Your task to perform on an android device: allow cookies in the chrome app Image 0: 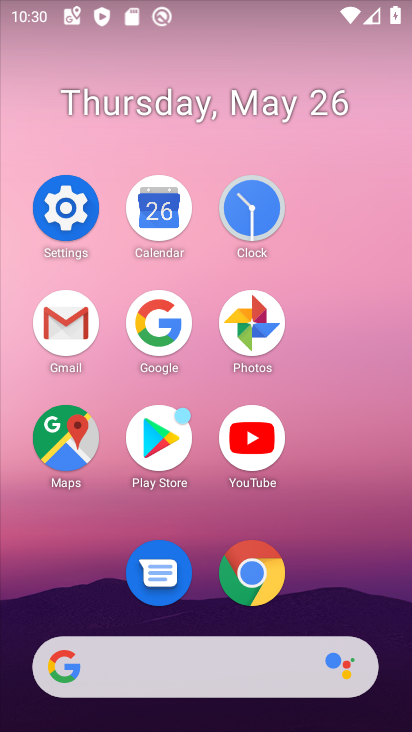
Step 0: click (256, 573)
Your task to perform on an android device: allow cookies in the chrome app Image 1: 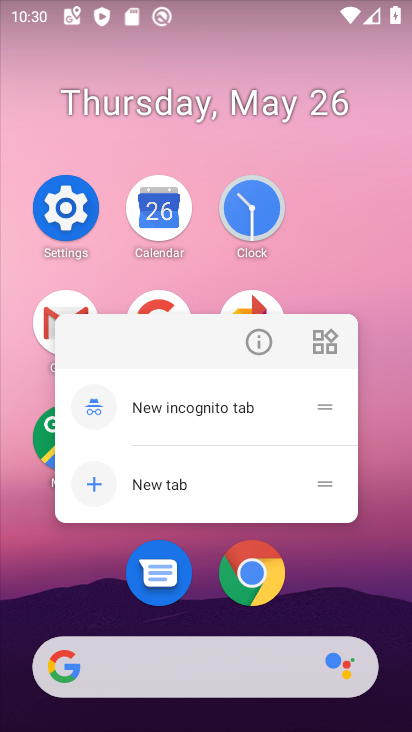
Step 1: click (240, 530)
Your task to perform on an android device: allow cookies in the chrome app Image 2: 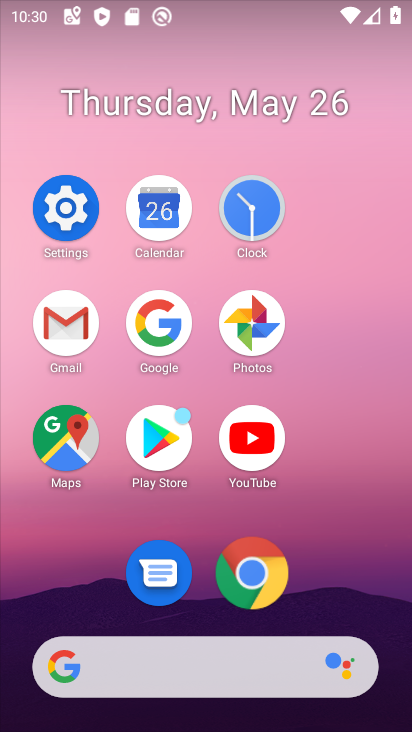
Step 2: click (251, 584)
Your task to perform on an android device: allow cookies in the chrome app Image 3: 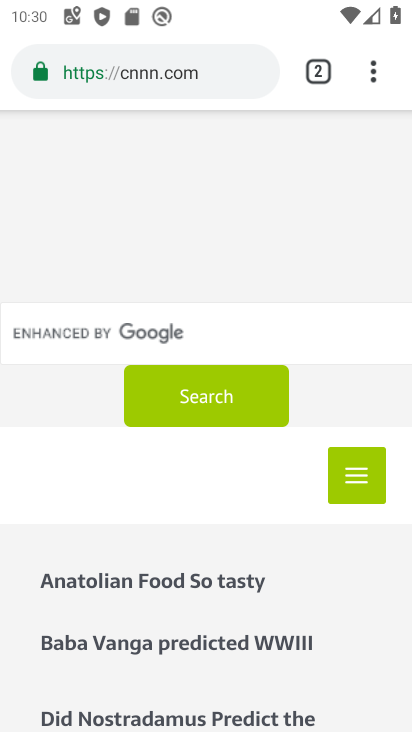
Step 3: click (385, 73)
Your task to perform on an android device: allow cookies in the chrome app Image 4: 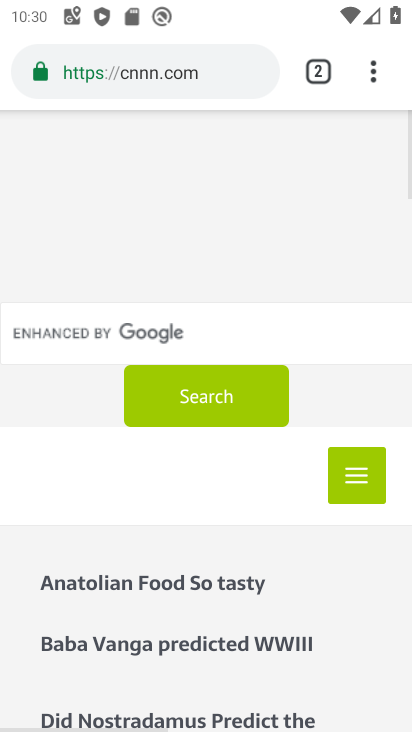
Step 4: click (372, 69)
Your task to perform on an android device: allow cookies in the chrome app Image 5: 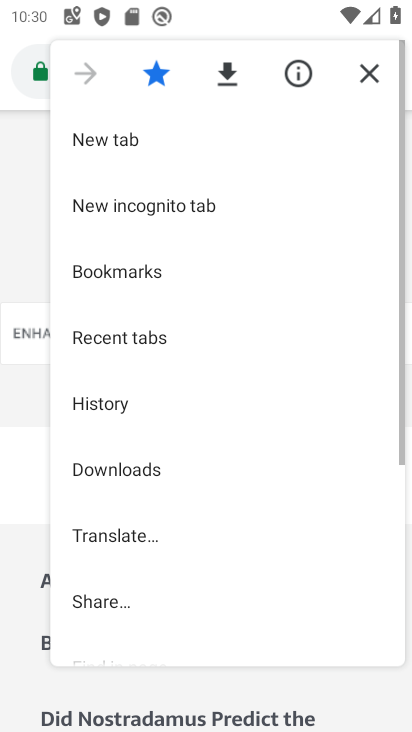
Step 5: drag from (239, 478) to (203, 91)
Your task to perform on an android device: allow cookies in the chrome app Image 6: 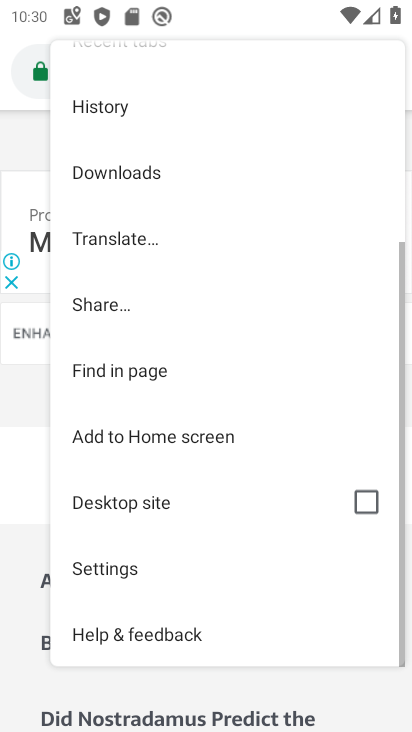
Step 6: click (169, 579)
Your task to perform on an android device: allow cookies in the chrome app Image 7: 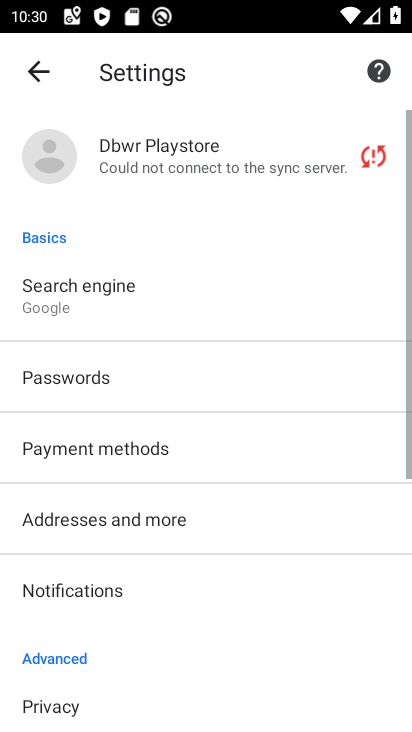
Step 7: drag from (169, 578) to (134, 173)
Your task to perform on an android device: allow cookies in the chrome app Image 8: 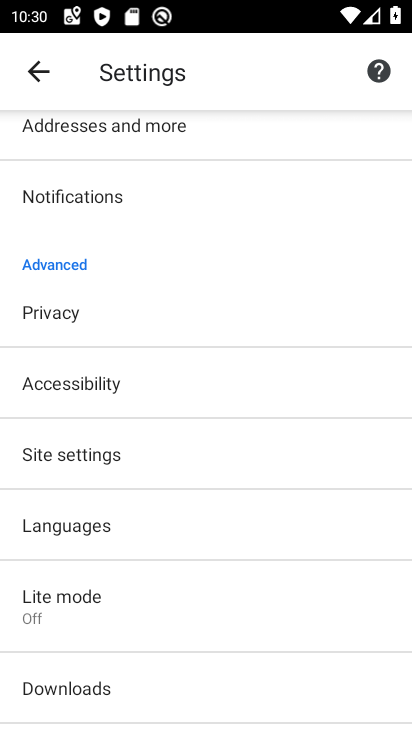
Step 8: click (186, 447)
Your task to perform on an android device: allow cookies in the chrome app Image 9: 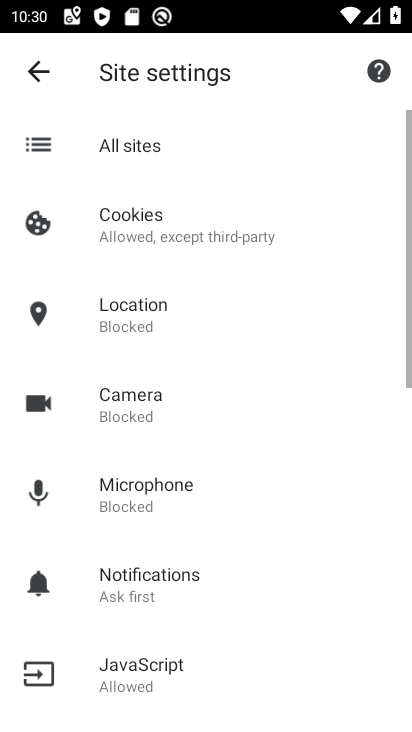
Step 9: click (280, 197)
Your task to perform on an android device: allow cookies in the chrome app Image 10: 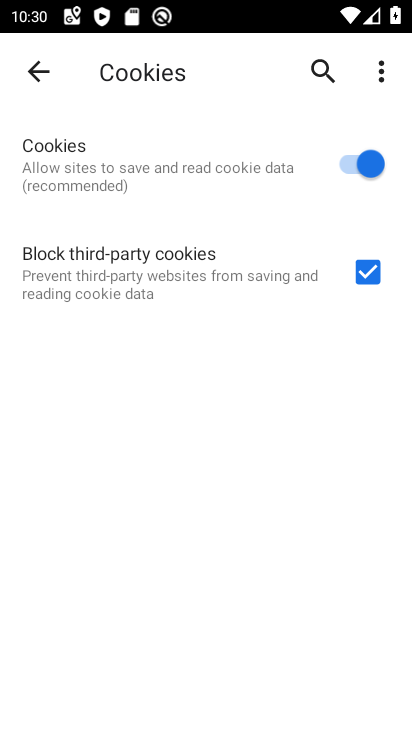
Step 10: task complete